Your task to perform on an android device: Open the web browser Image 0: 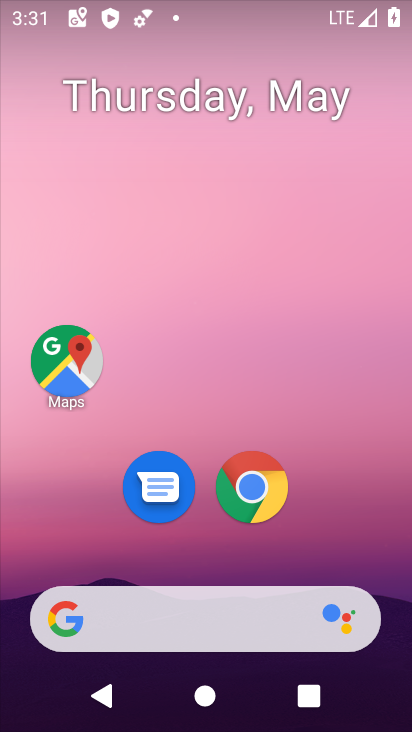
Step 0: drag from (166, 660) to (277, 221)
Your task to perform on an android device: Open the web browser Image 1: 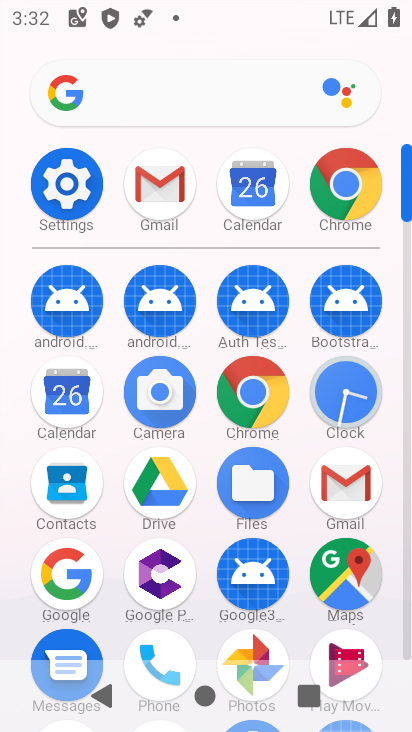
Step 1: click (348, 216)
Your task to perform on an android device: Open the web browser Image 2: 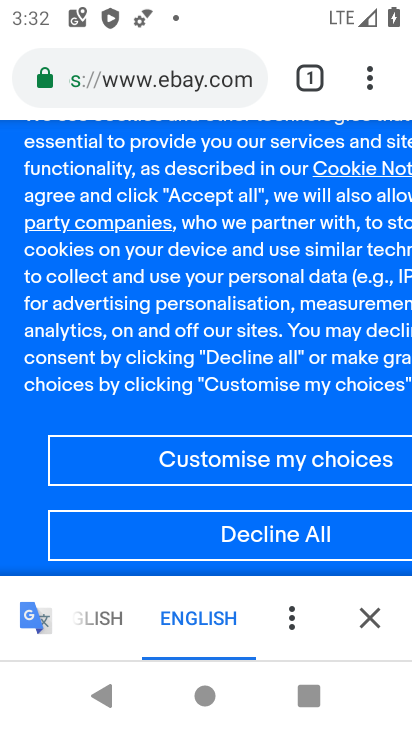
Step 2: task complete